Your task to perform on an android device: See recent photos Image 0: 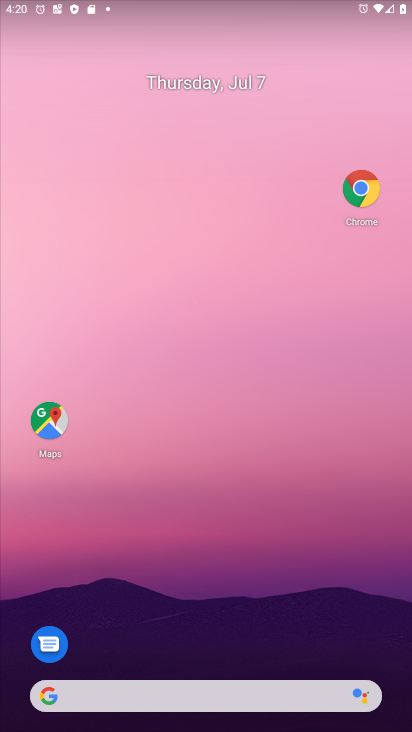
Step 0: drag from (247, 609) to (256, 125)
Your task to perform on an android device: See recent photos Image 1: 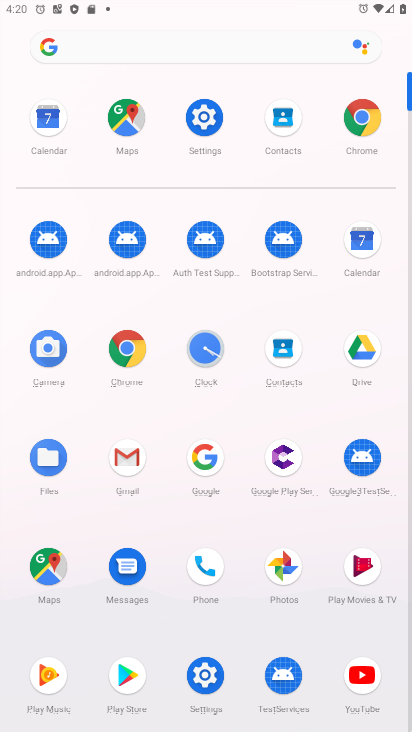
Step 1: click (296, 571)
Your task to perform on an android device: See recent photos Image 2: 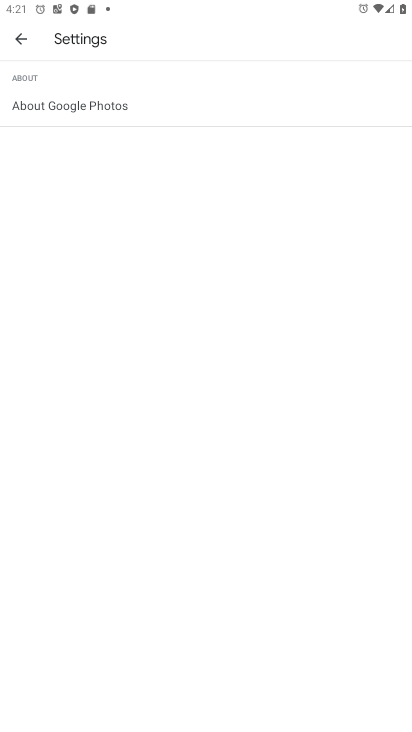
Step 2: press home button
Your task to perform on an android device: See recent photos Image 3: 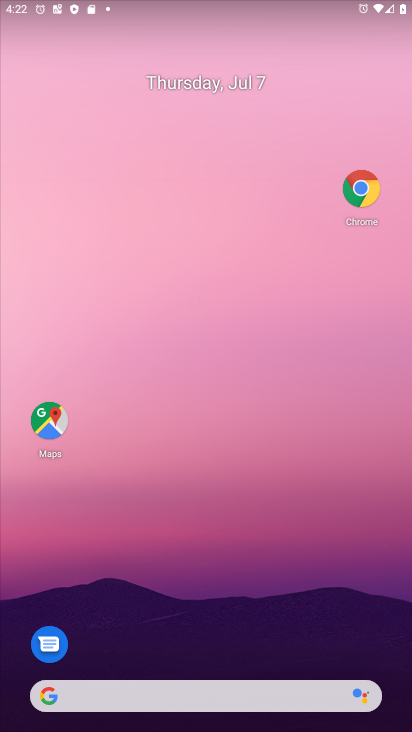
Step 3: drag from (233, 525) to (326, 115)
Your task to perform on an android device: See recent photos Image 4: 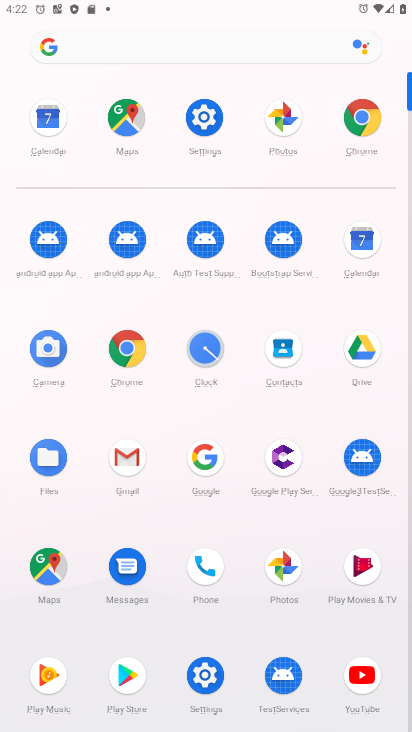
Step 4: click (275, 566)
Your task to perform on an android device: See recent photos Image 5: 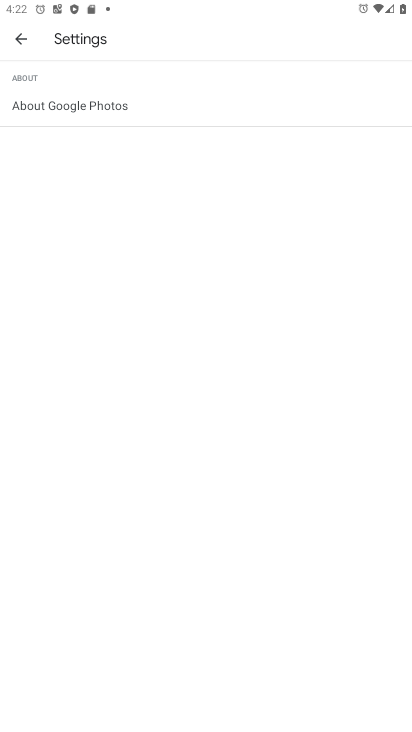
Step 5: click (26, 37)
Your task to perform on an android device: See recent photos Image 6: 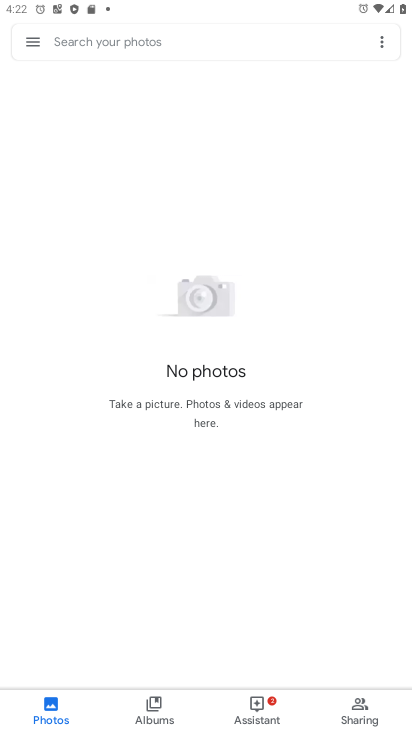
Step 6: task complete